Your task to perform on an android device: Open Reddit.com Image 0: 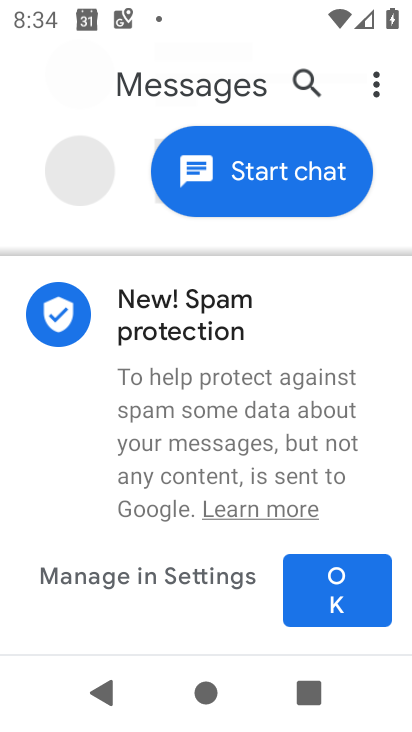
Step 0: press home button
Your task to perform on an android device: Open Reddit.com Image 1: 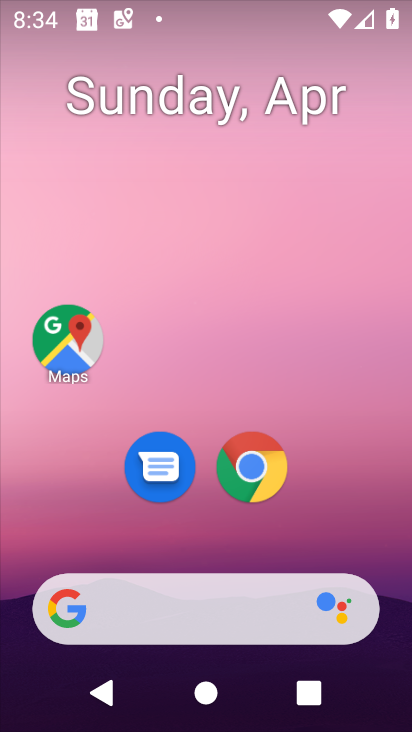
Step 1: click (239, 472)
Your task to perform on an android device: Open Reddit.com Image 2: 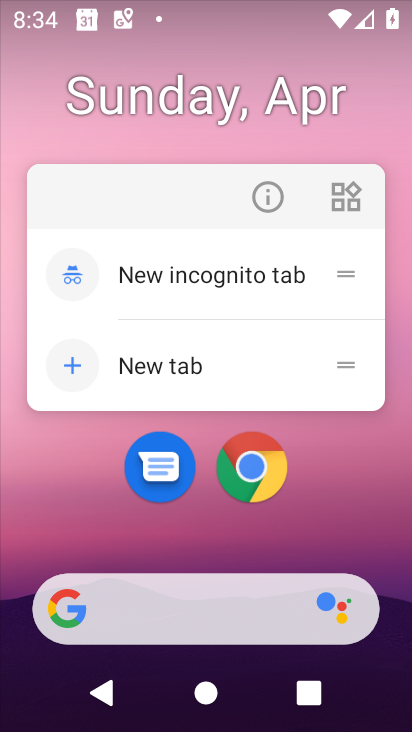
Step 2: click (239, 471)
Your task to perform on an android device: Open Reddit.com Image 3: 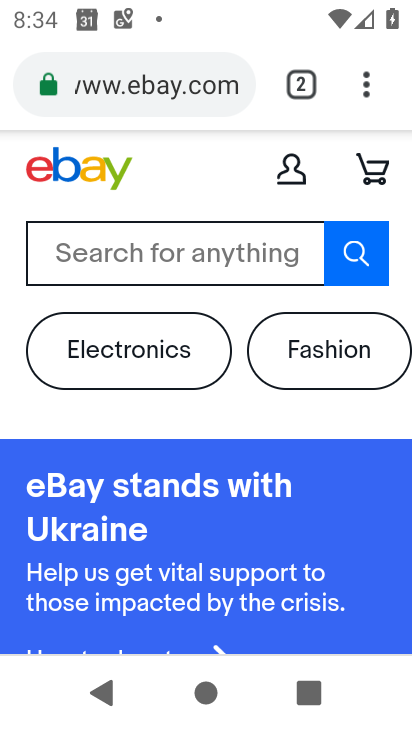
Step 3: click (170, 87)
Your task to perform on an android device: Open Reddit.com Image 4: 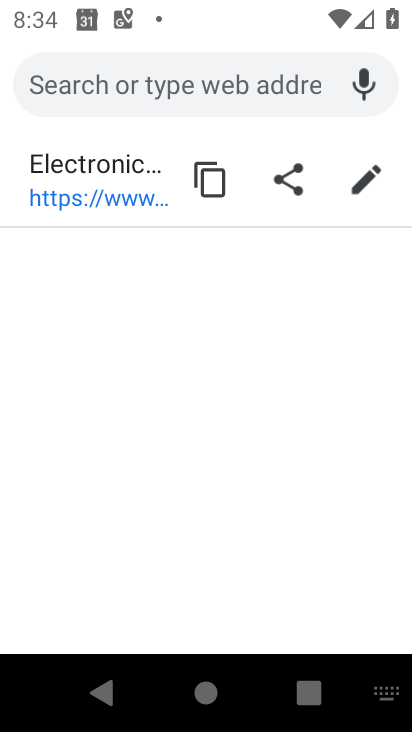
Step 4: type "reddit.com"
Your task to perform on an android device: Open Reddit.com Image 5: 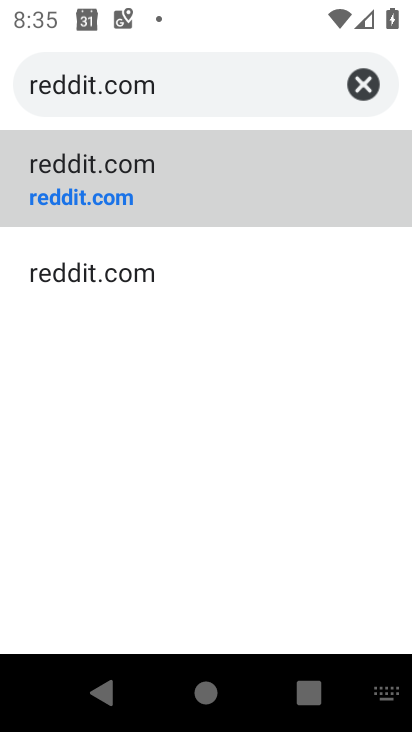
Step 5: click (85, 179)
Your task to perform on an android device: Open Reddit.com Image 6: 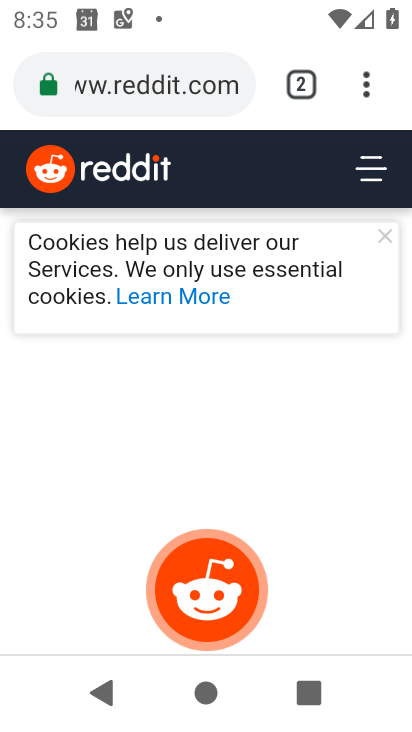
Step 6: task complete